Your task to perform on an android device: empty trash in google photos Image 0: 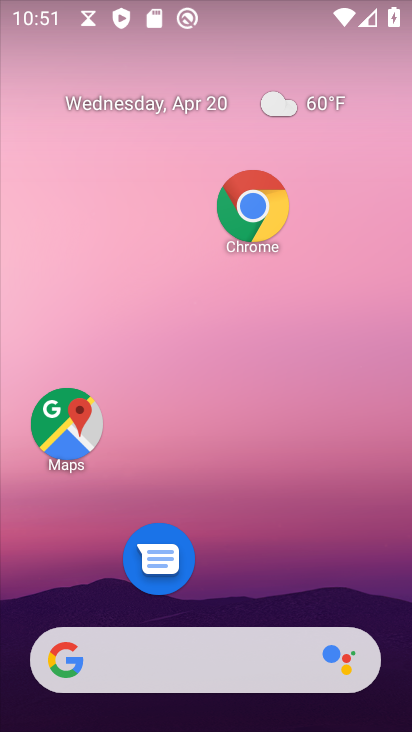
Step 0: drag from (307, 617) to (339, 0)
Your task to perform on an android device: empty trash in google photos Image 1: 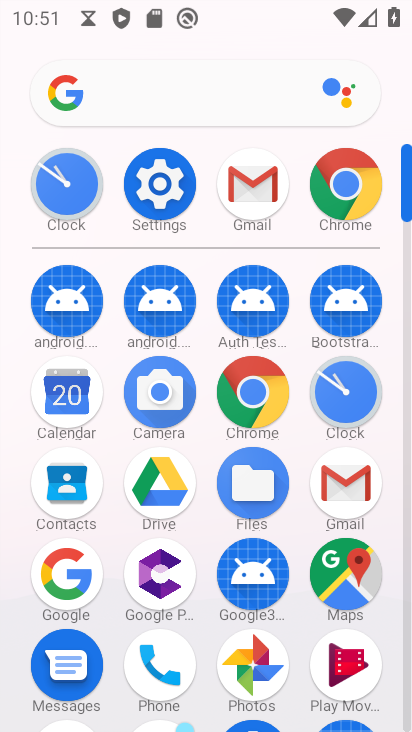
Step 1: drag from (299, 629) to (319, 251)
Your task to perform on an android device: empty trash in google photos Image 2: 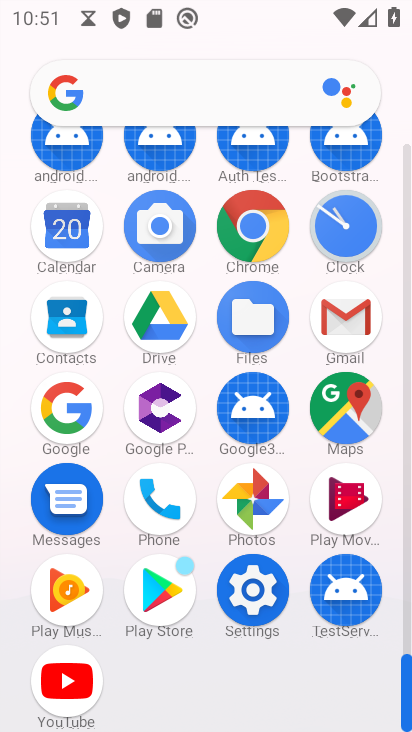
Step 2: click (264, 499)
Your task to perform on an android device: empty trash in google photos Image 3: 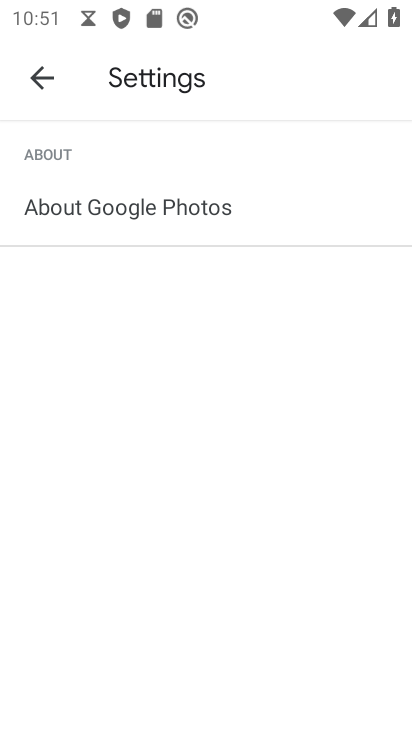
Step 3: press back button
Your task to perform on an android device: empty trash in google photos Image 4: 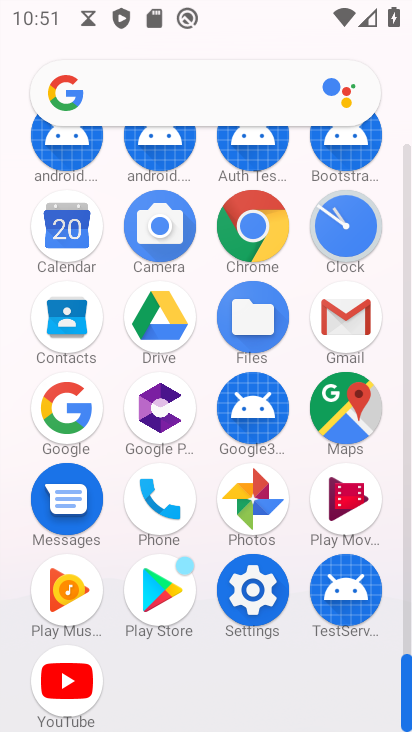
Step 4: click (275, 505)
Your task to perform on an android device: empty trash in google photos Image 5: 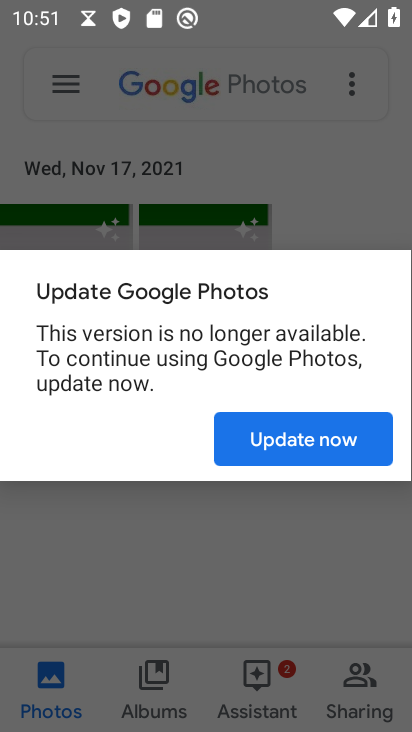
Step 5: click (297, 449)
Your task to perform on an android device: empty trash in google photos Image 6: 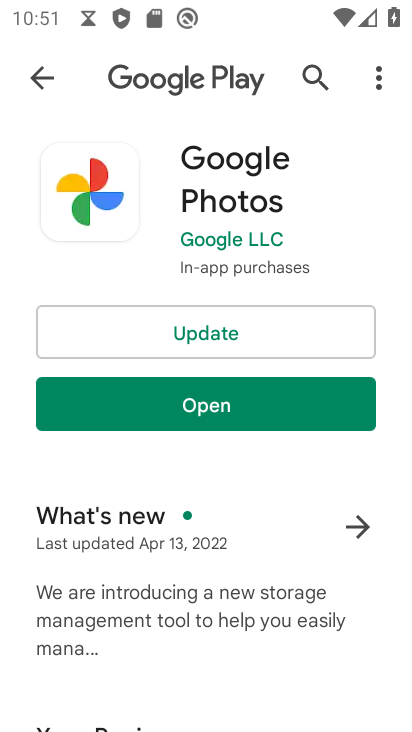
Step 6: click (262, 324)
Your task to perform on an android device: empty trash in google photos Image 7: 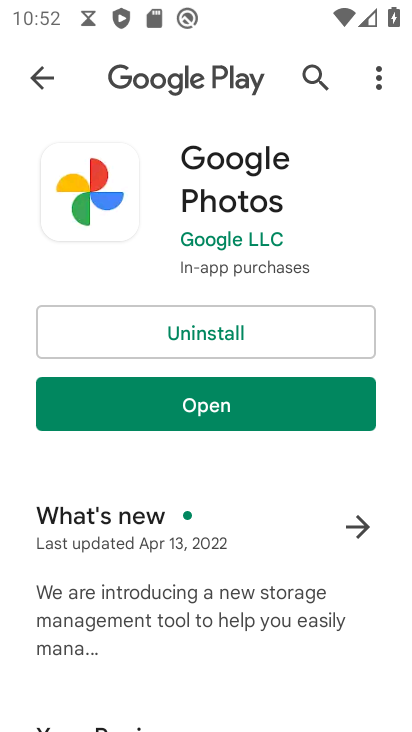
Step 7: click (300, 416)
Your task to perform on an android device: empty trash in google photos Image 8: 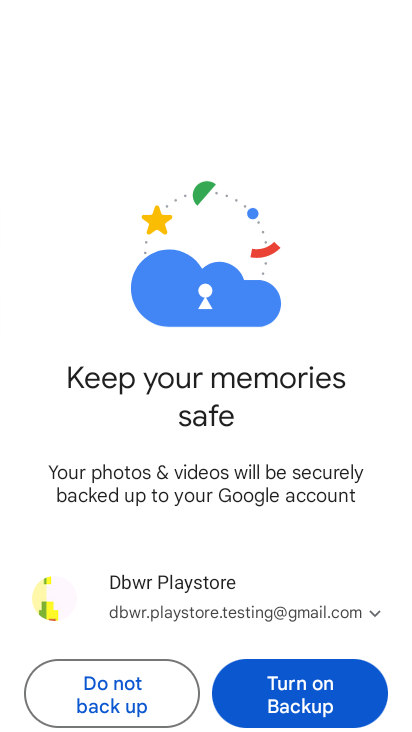
Step 8: press back button
Your task to perform on an android device: empty trash in google photos Image 9: 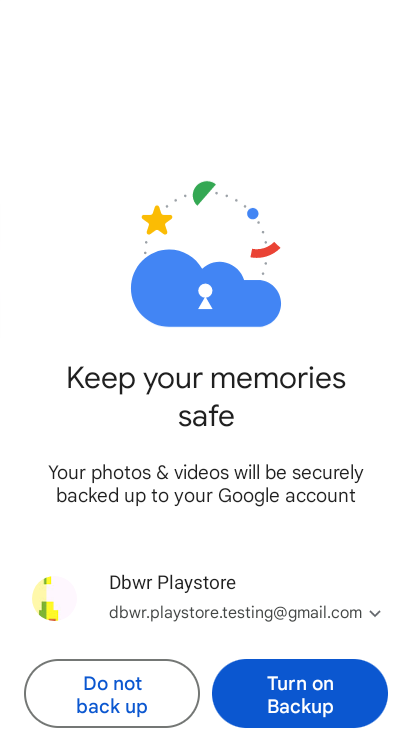
Step 9: press back button
Your task to perform on an android device: empty trash in google photos Image 10: 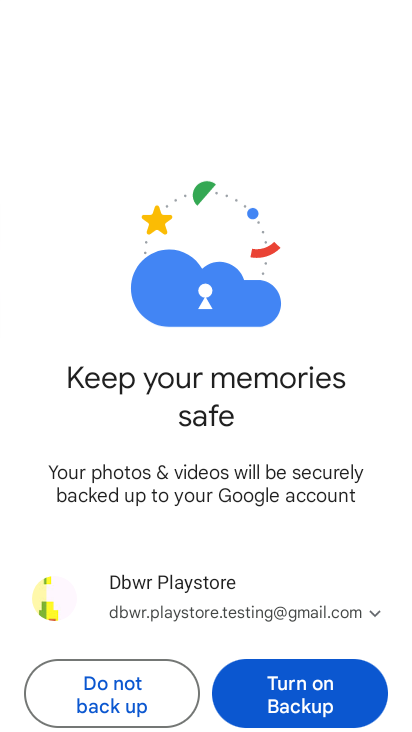
Step 10: drag from (239, 584) to (264, 128)
Your task to perform on an android device: empty trash in google photos Image 11: 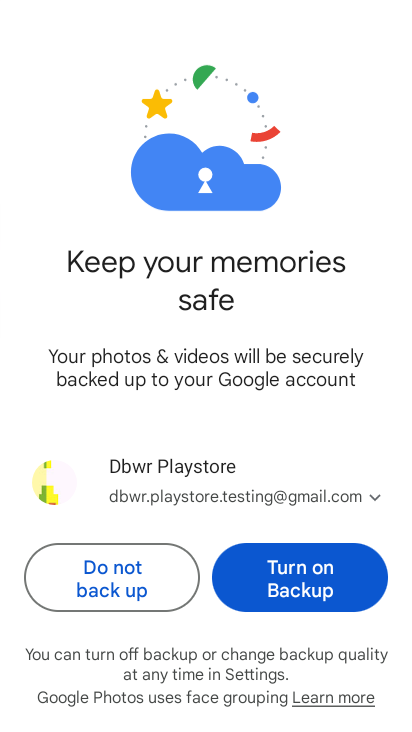
Step 11: click (121, 598)
Your task to perform on an android device: empty trash in google photos Image 12: 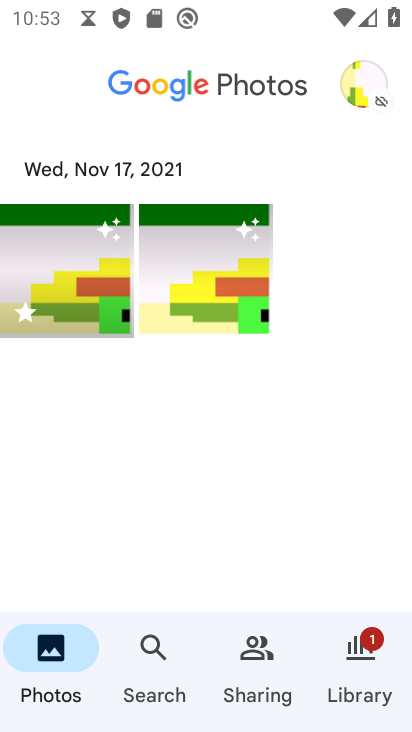
Step 12: click (382, 78)
Your task to perform on an android device: empty trash in google photos Image 13: 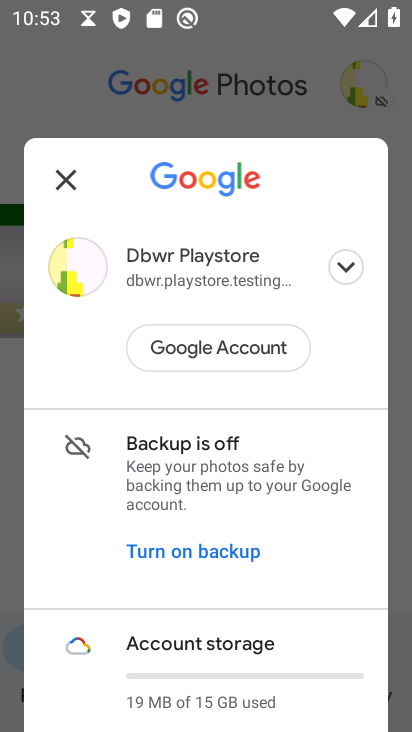
Step 13: drag from (264, 645) to (266, 214)
Your task to perform on an android device: empty trash in google photos Image 14: 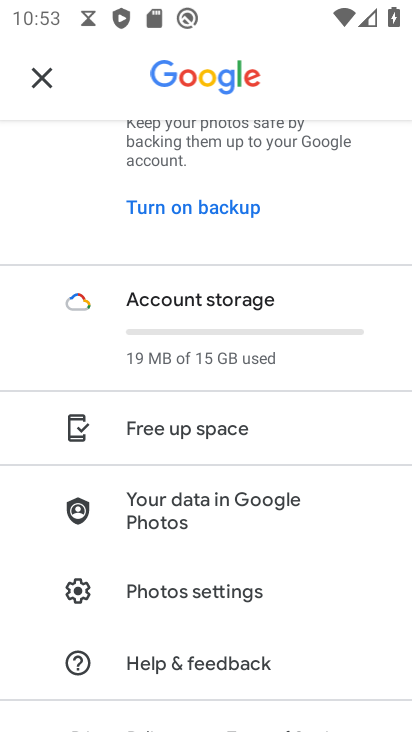
Step 14: click (46, 77)
Your task to perform on an android device: empty trash in google photos Image 15: 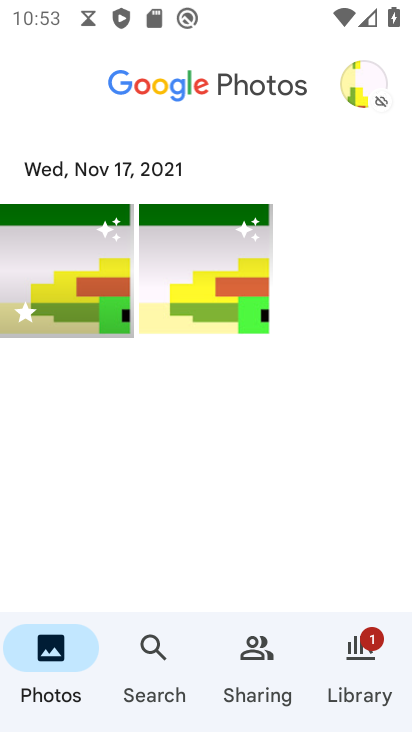
Step 15: click (353, 650)
Your task to perform on an android device: empty trash in google photos Image 16: 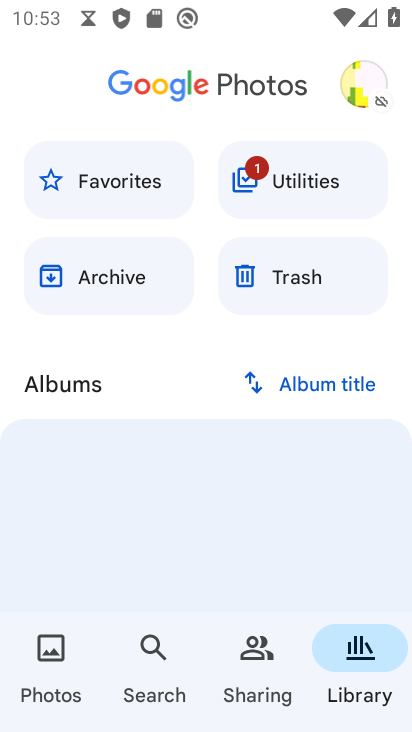
Step 16: click (271, 263)
Your task to perform on an android device: empty trash in google photos Image 17: 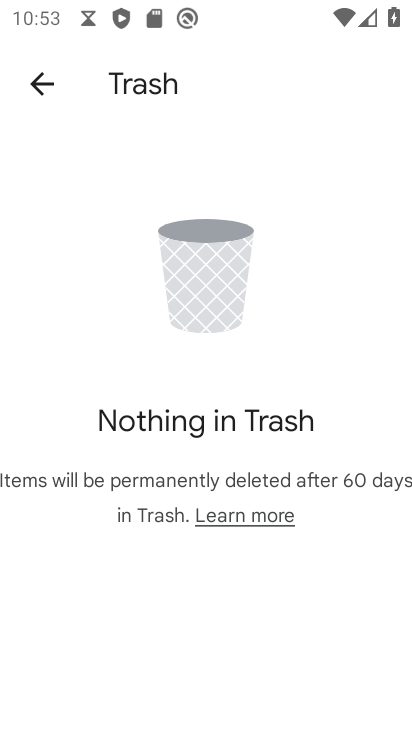
Step 17: task complete